Your task to perform on an android device: turn off picture-in-picture Image 0: 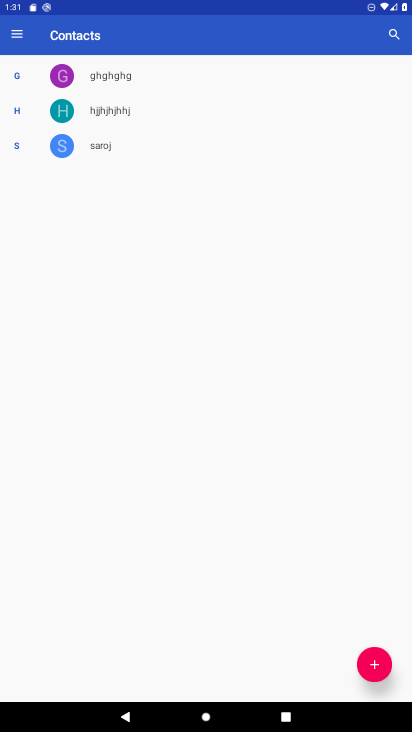
Step 0: press home button
Your task to perform on an android device: turn off picture-in-picture Image 1: 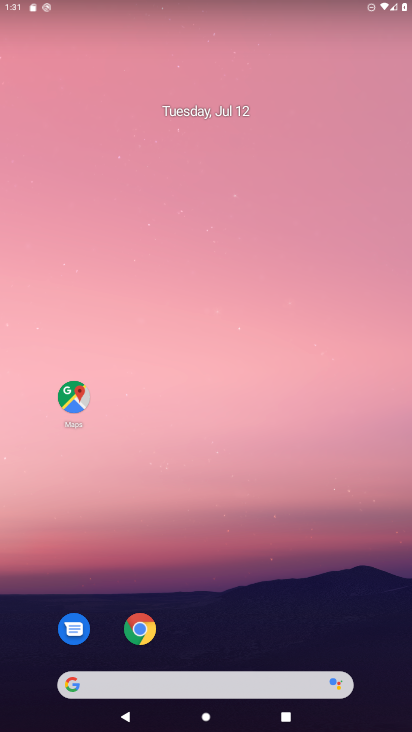
Step 1: click (140, 628)
Your task to perform on an android device: turn off picture-in-picture Image 2: 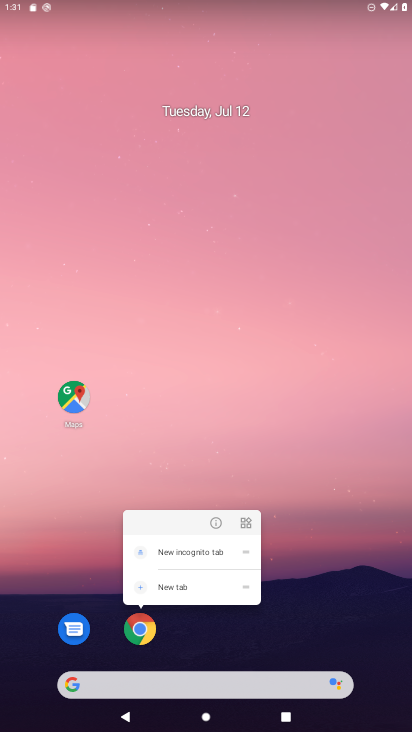
Step 2: click (218, 526)
Your task to perform on an android device: turn off picture-in-picture Image 3: 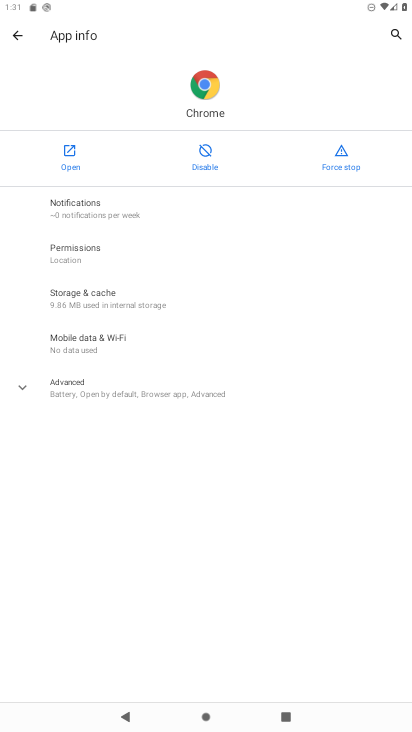
Step 3: click (27, 383)
Your task to perform on an android device: turn off picture-in-picture Image 4: 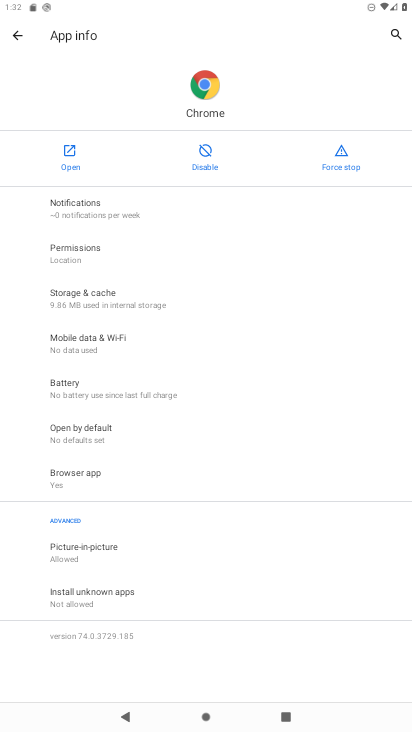
Step 4: click (107, 553)
Your task to perform on an android device: turn off picture-in-picture Image 5: 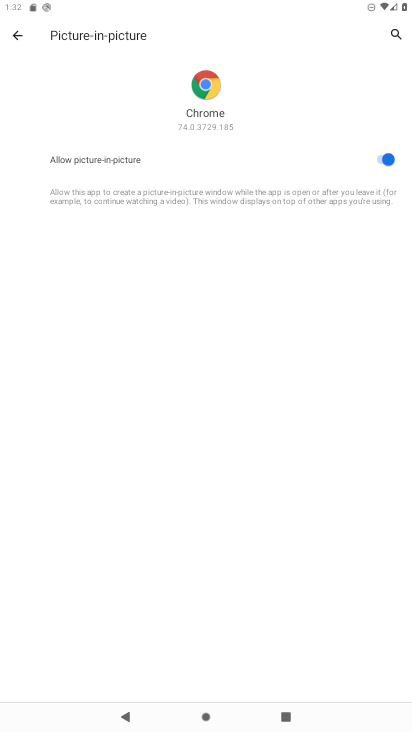
Step 5: click (384, 155)
Your task to perform on an android device: turn off picture-in-picture Image 6: 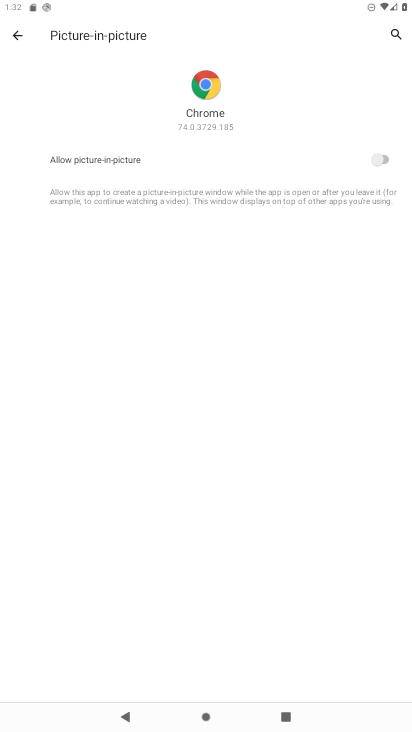
Step 6: task complete